Your task to perform on an android device: Open calendar and show me the second week of next month Image 0: 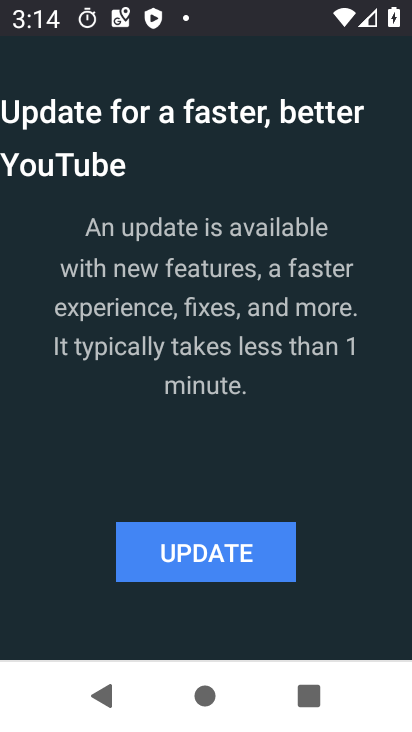
Step 0: press home button
Your task to perform on an android device: Open calendar and show me the second week of next month Image 1: 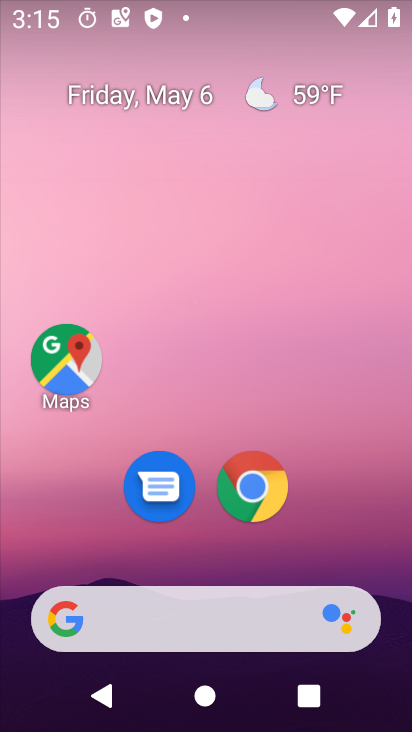
Step 1: drag from (370, 532) to (331, 84)
Your task to perform on an android device: Open calendar and show me the second week of next month Image 2: 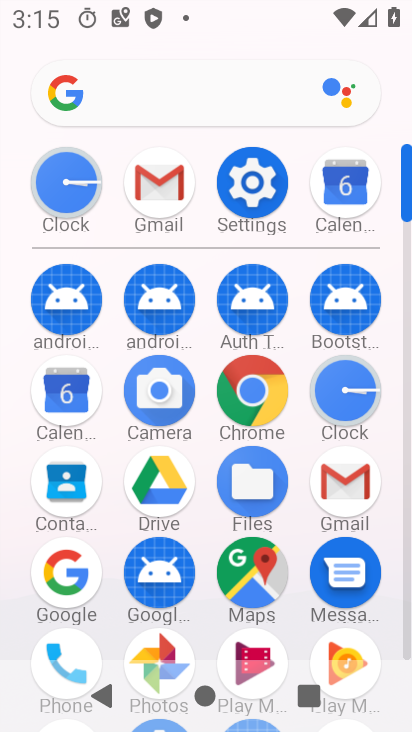
Step 2: click (60, 404)
Your task to perform on an android device: Open calendar and show me the second week of next month Image 3: 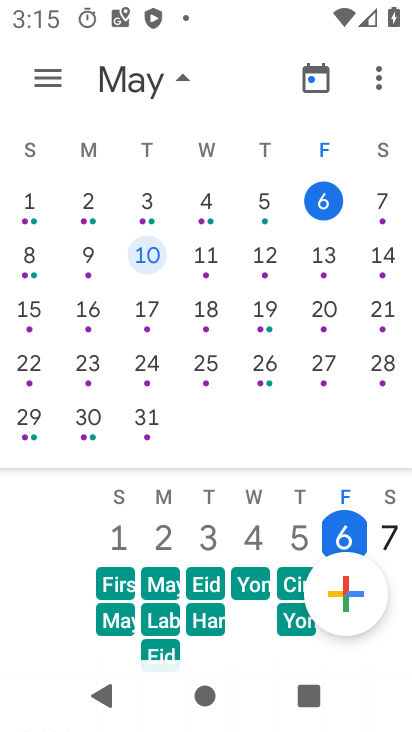
Step 3: drag from (361, 283) to (7, 312)
Your task to perform on an android device: Open calendar and show me the second week of next month Image 4: 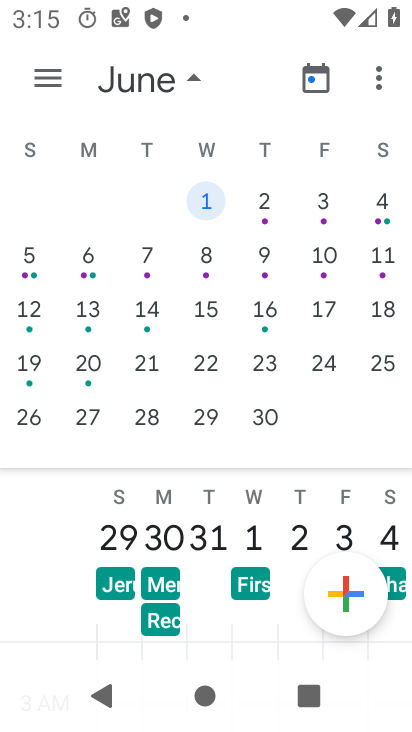
Step 4: click (200, 257)
Your task to perform on an android device: Open calendar and show me the second week of next month Image 5: 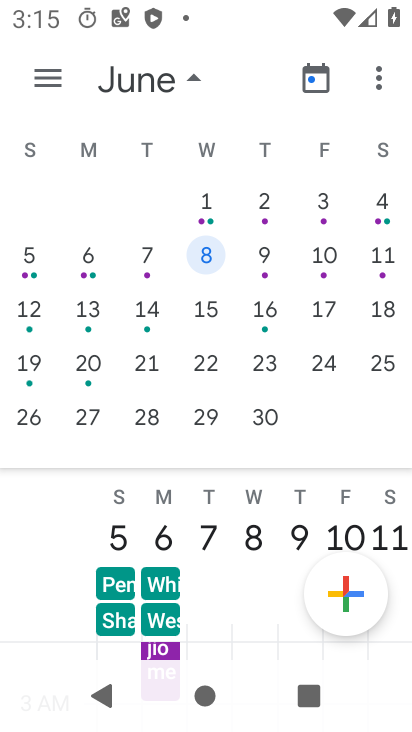
Step 5: task complete